Your task to perform on an android device: turn off airplane mode Image 0: 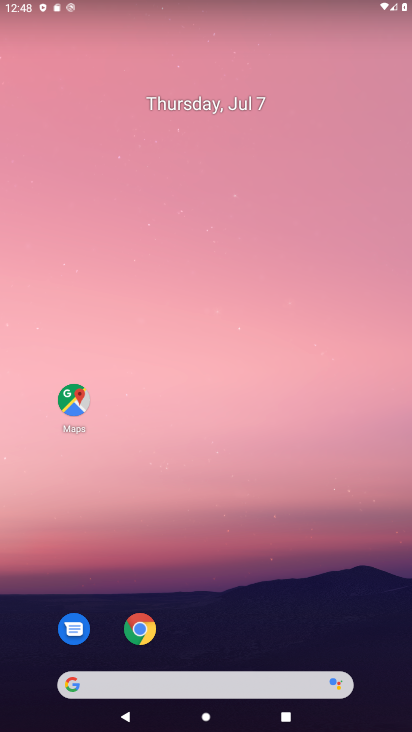
Step 0: drag from (226, 641) to (231, 208)
Your task to perform on an android device: turn off airplane mode Image 1: 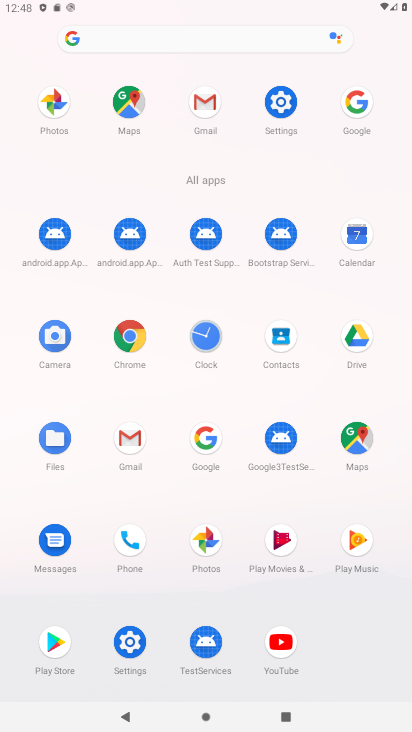
Step 1: click (280, 101)
Your task to perform on an android device: turn off airplane mode Image 2: 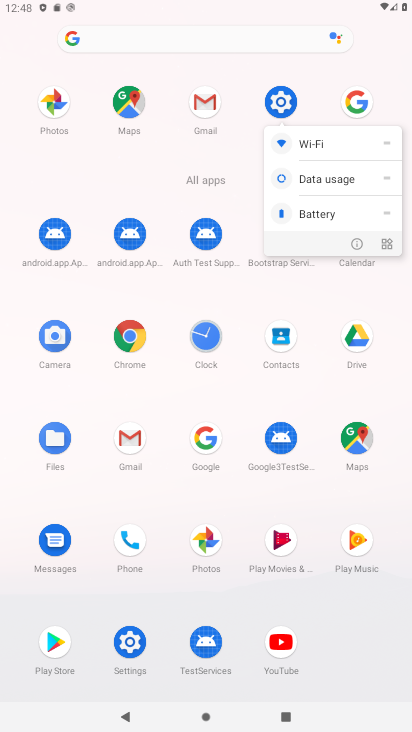
Step 2: click (283, 102)
Your task to perform on an android device: turn off airplane mode Image 3: 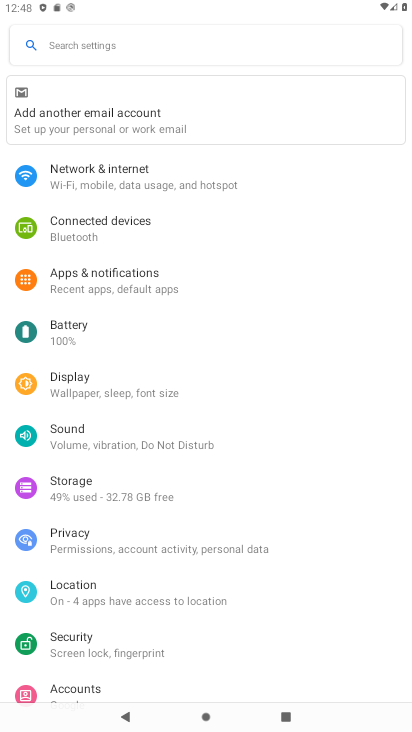
Step 3: click (97, 175)
Your task to perform on an android device: turn off airplane mode Image 4: 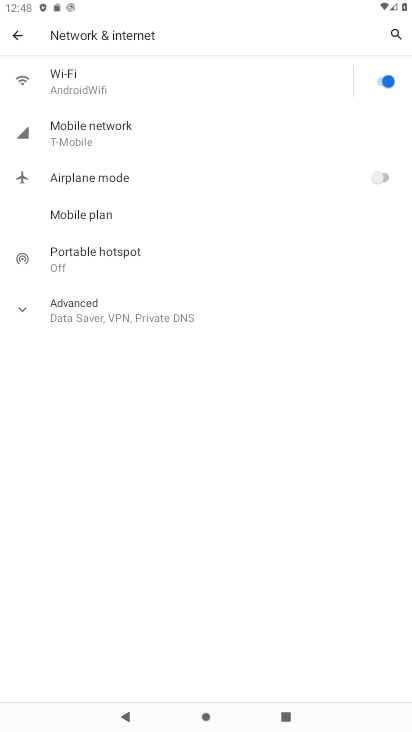
Step 4: task complete